Your task to perform on an android device: turn off location history Image 0: 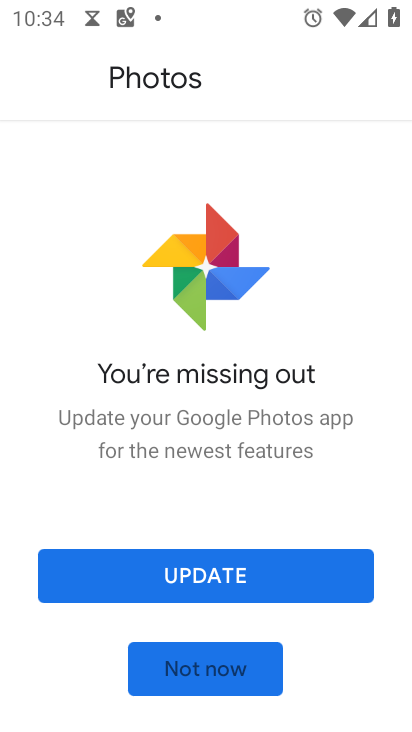
Step 0: click (216, 666)
Your task to perform on an android device: turn off location history Image 1: 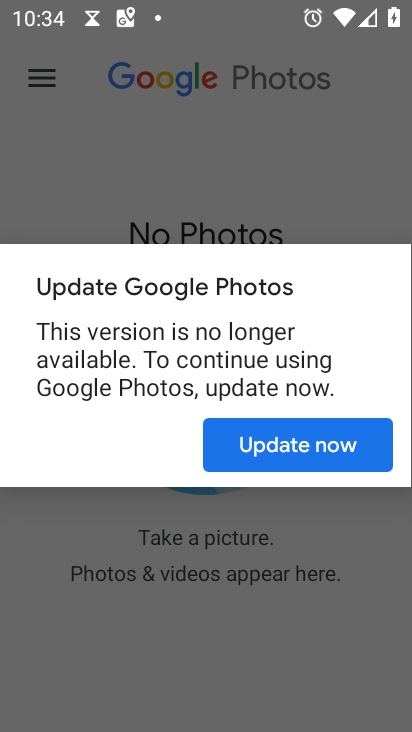
Step 1: press back button
Your task to perform on an android device: turn off location history Image 2: 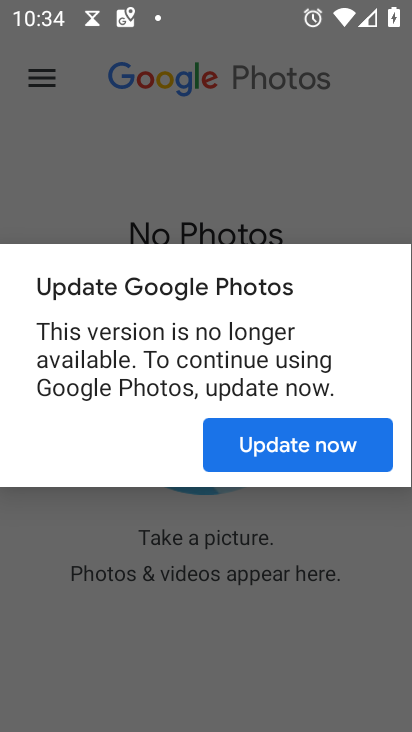
Step 2: press home button
Your task to perform on an android device: turn off location history Image 3: 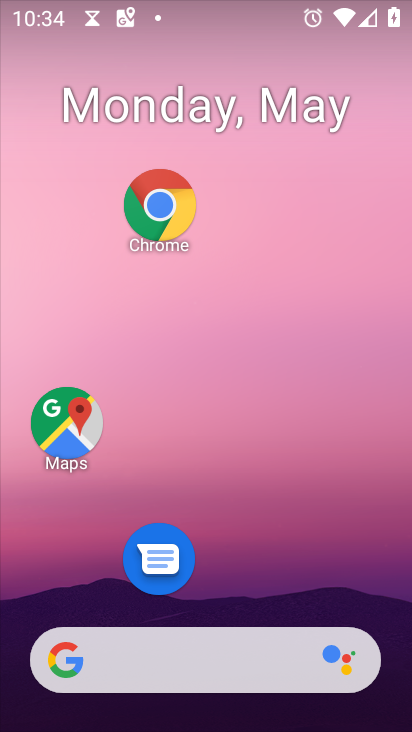
Step 3: drag from (267, 677) to (271, 25)
Your task to perform on an android device: turn off location history Image 4: 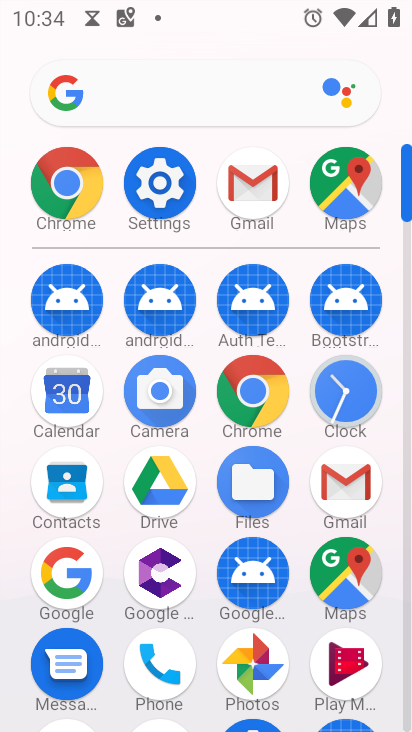
Step 4: click (336, 586)
Your task to perform on an android device: turn off location history Image 5: 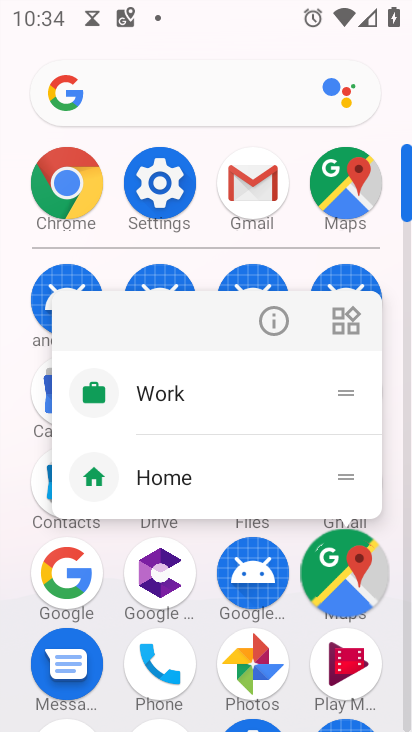
Step 5: click (339, 588)
Your task to perform on an android device: turn off location history Image 6: 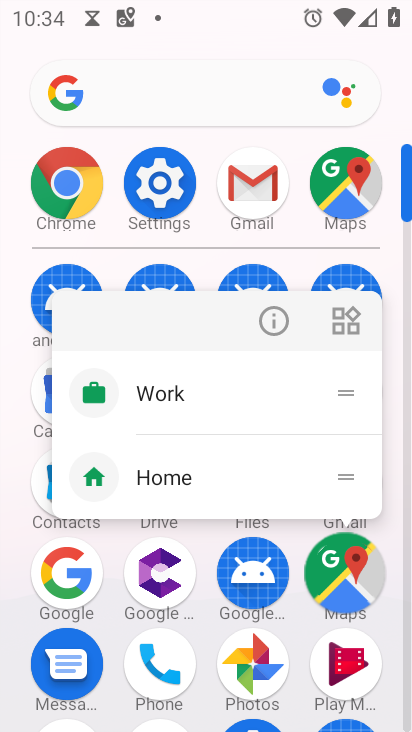
Step 6: click (340, 588)
Your task to perform on an android device: turn off location history Image 7: 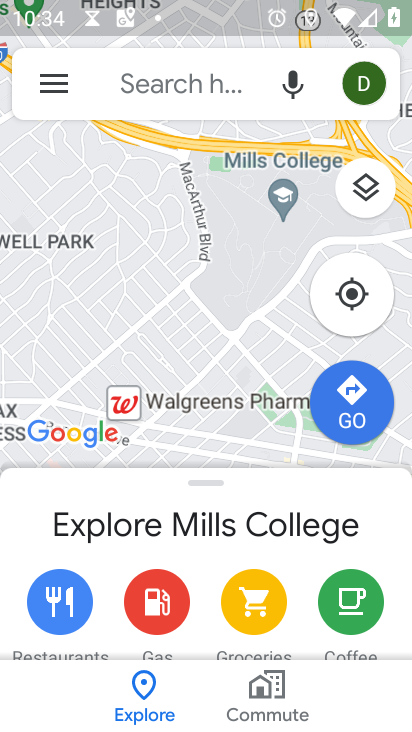
Step 7: click (55, 84)
Your task to perform on an android device: turn off location history Image 8: 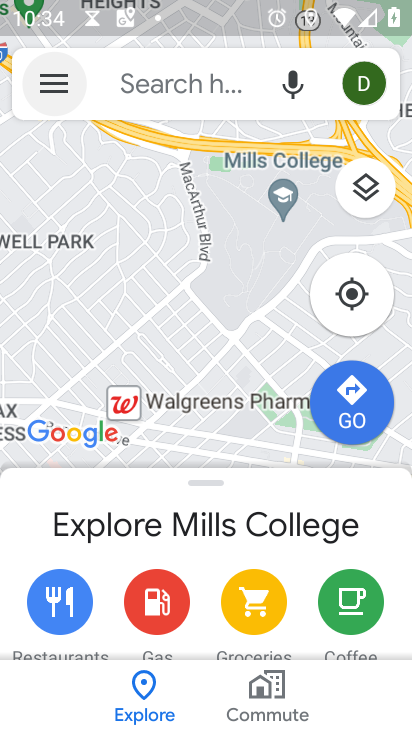
Step 8: click (55, 84)
Your task to perform on an android device: turn off location history Image 9: 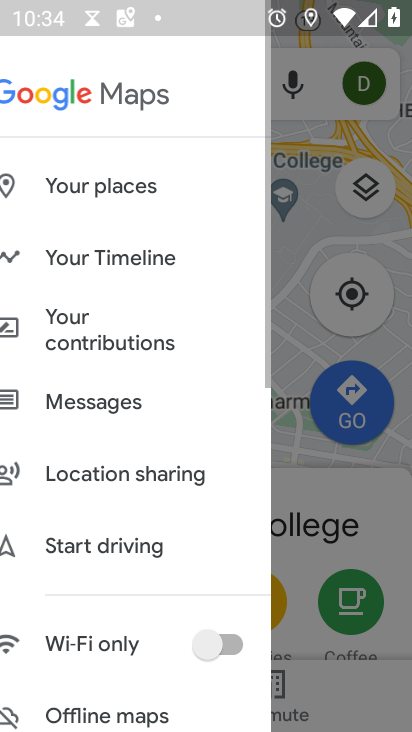
Step 9: click (59, 92)
Your task to perform on an android device: turn off location history Image 10: 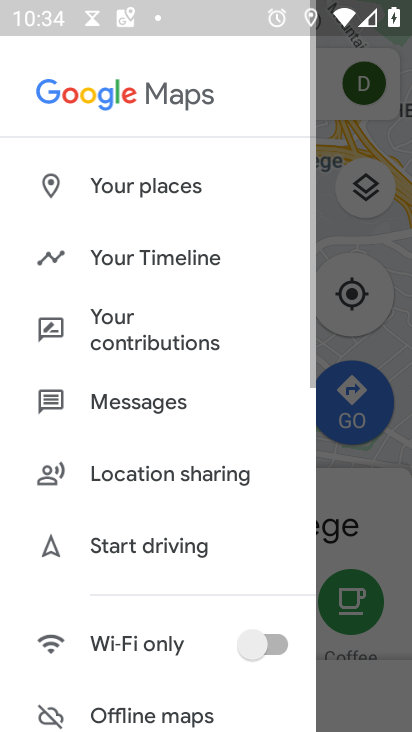
Step 10: click (177, 264)
Your task to perform on an android device: turn off location history Image 11: 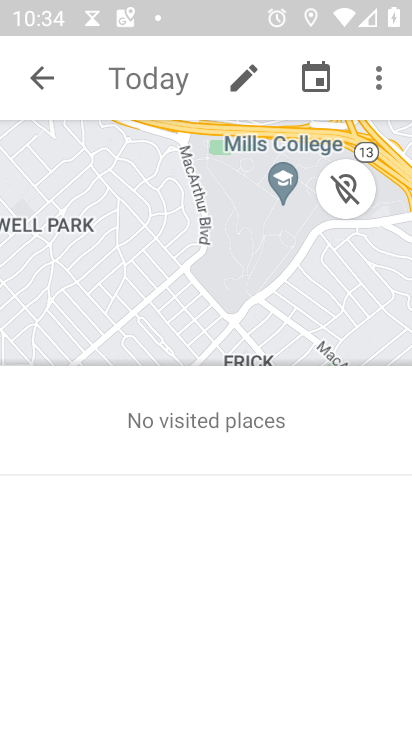
Step 11: drag from (379, 79) to (324, 215)
Your task to perform on an android device: turn off location history Image 12: 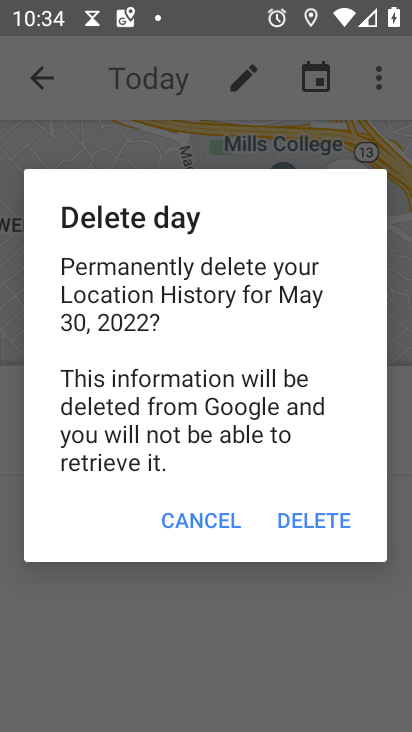
Step 12: click (202, 520)
Your task to perform on an android device: turn off location history Image 13: 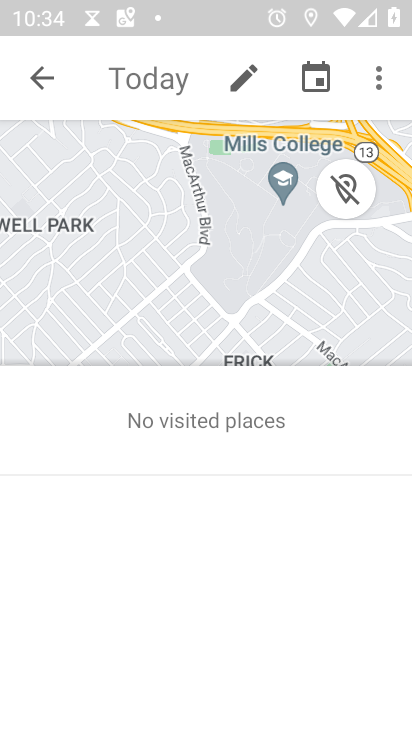
Step 13: click (372, 86)
Your task to perform on an android device: turn off location history Image 14: 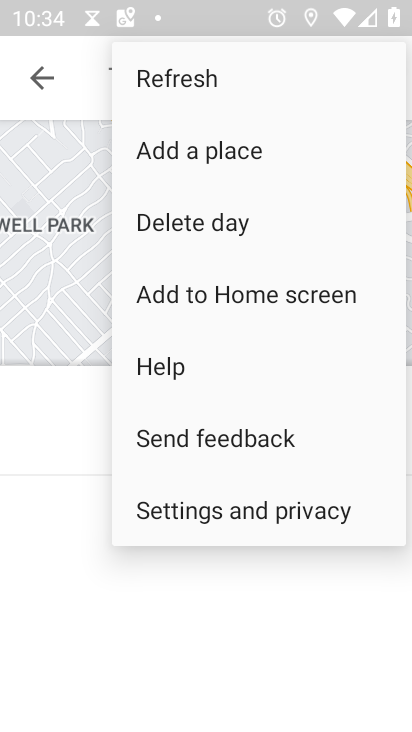
Step 14: click (248, 509)
Your task to perform on an android device: turn off location history Image 15: 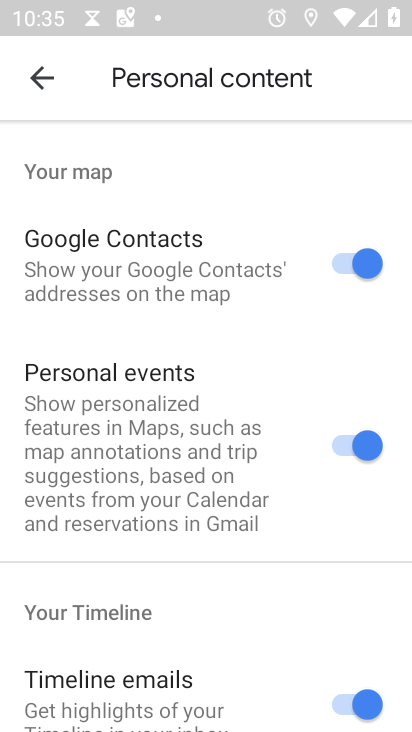
Step 15: drag from (199, 363) to (164, 136)
Your task to perform on an android device: turn off location history Image 16: 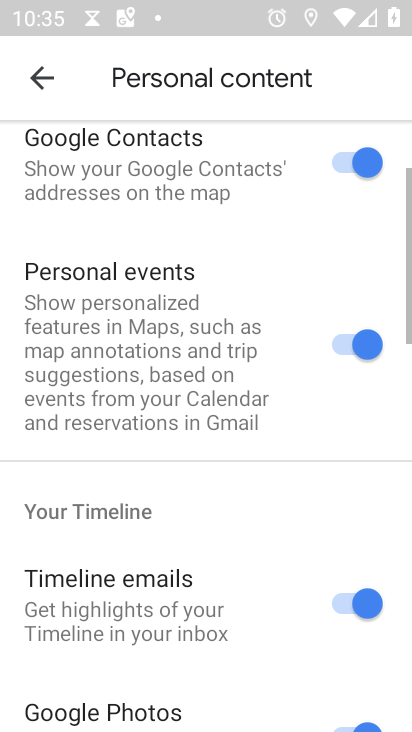
Step 16: drag from (322, 571) to (240, 598)
Your task to perform on an android device: turn off location history Image 17: 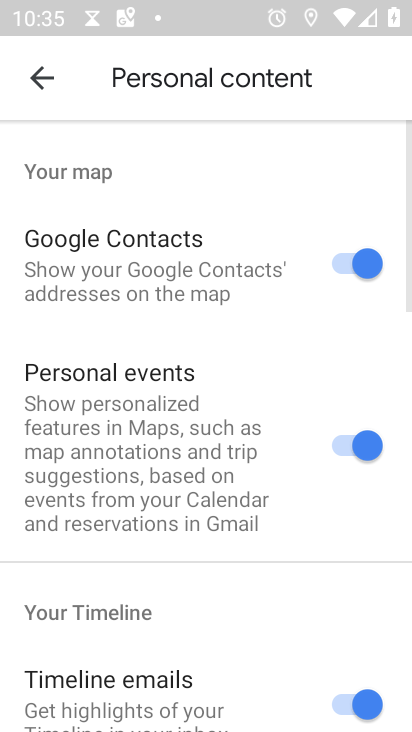
Step 17: drag from (182, 349) to (210, 470)
Your task to perform on an android device: turn off location history Image 18: 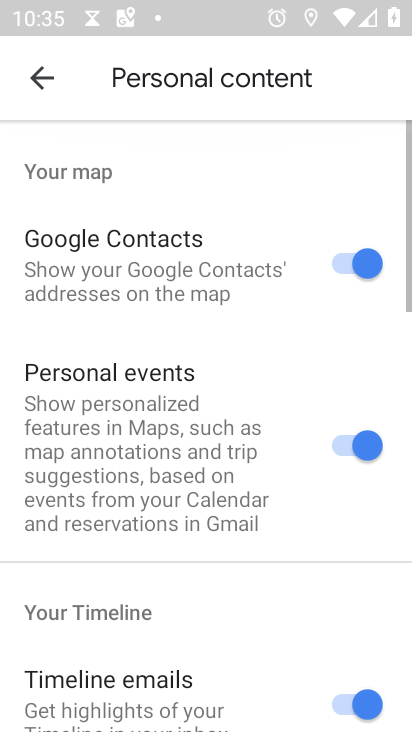
Step 18: drag from (170, 211) to (225, 491)
Your task to perform on an android device: turn off location history Image 19: 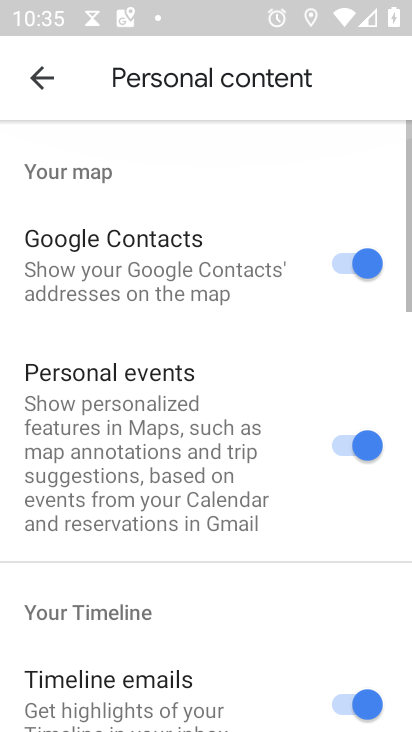
Step 19: drag from (176, 190) to (231, 537)
Your task to perform on an android device: turn off location history Image 20: 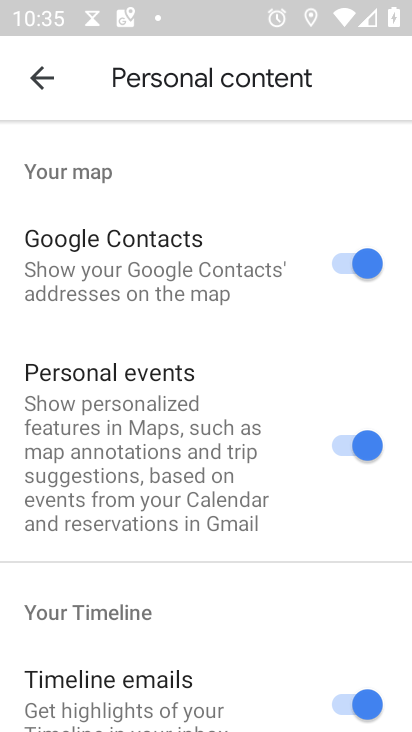
Step 20: drag from (150, 526) to (148, 139)
Your task to perform on an android device: turn off location history Image 21: 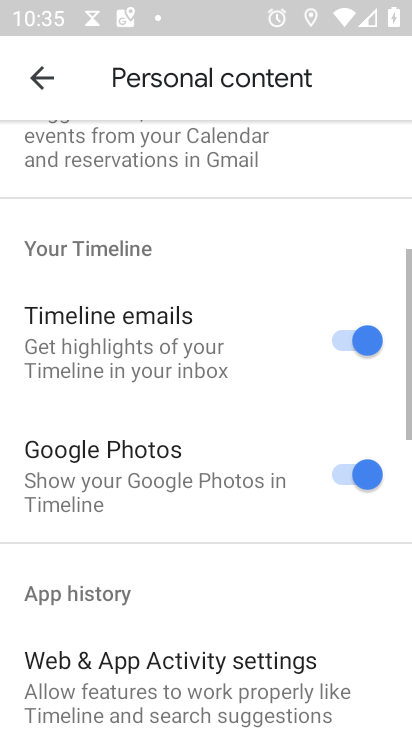
Step 21: drag from (181, 395) to (90, 132)
Your task to perform on an android device: turn off location history Image 22: 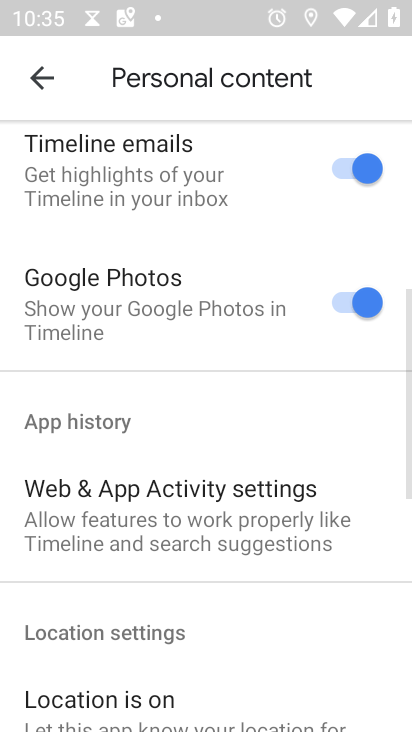
Step 22: click (36, 77)
Your task to perform on an android device: turn off location history Image 23: 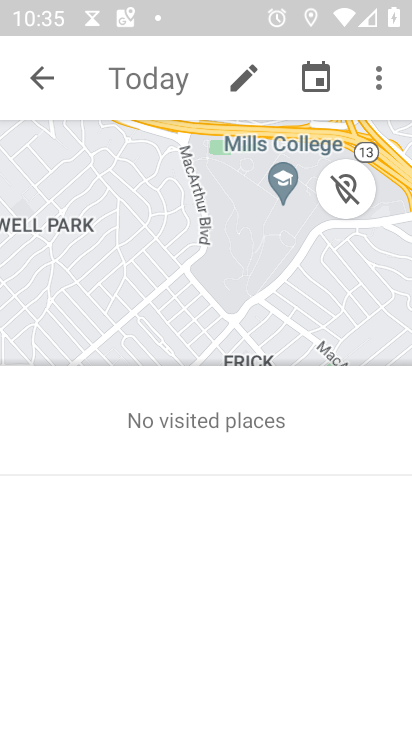
Step 23: click (375, 80)
Your task to perform on an android device: turn off location history Image 24: 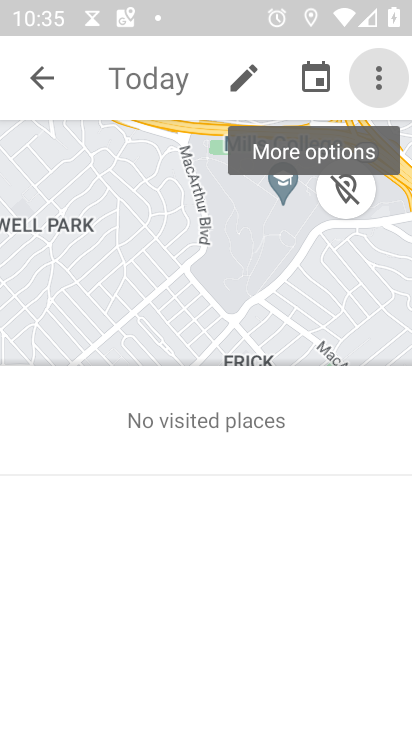
Step 24: click (373, 81)
Your task to perform on an android device: turn off location history Image 25: 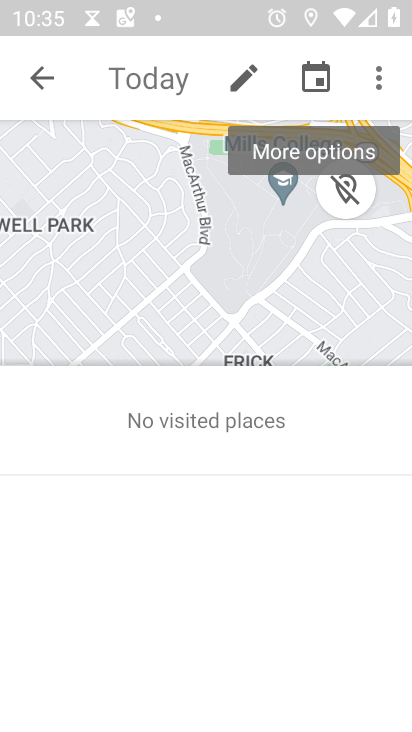
Step 25: click (373, 81)
Your task to perform on an android device: turn off location history Image 26: 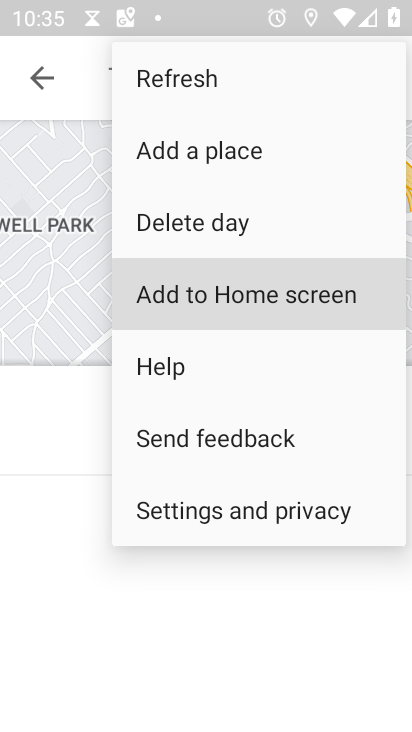
Step 26: click (373, 81)
Your task to perform on an android device: turn off location history Image 27: 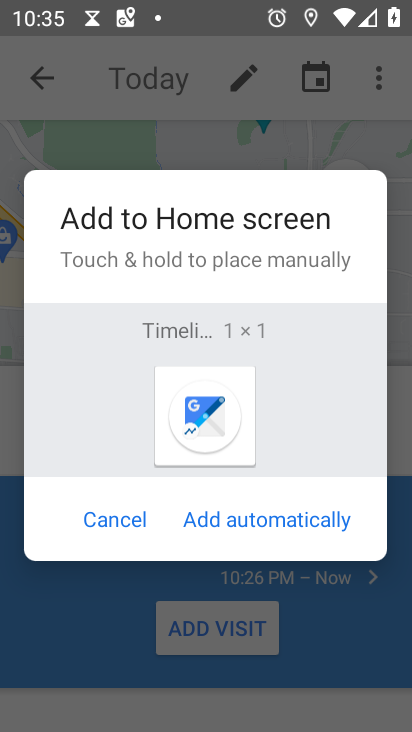
Step 27: click (102, 139)
Your task to perform on an android device: turn off location history Image 28: 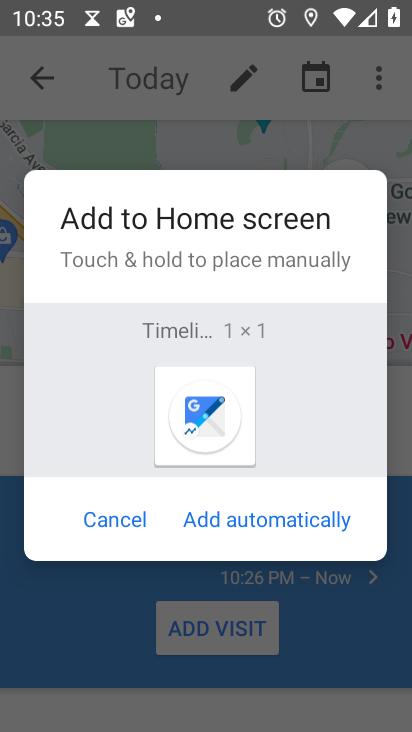
Step 28: click (103, 138)
Your task to perform on an android device: turn off location history Image 29: 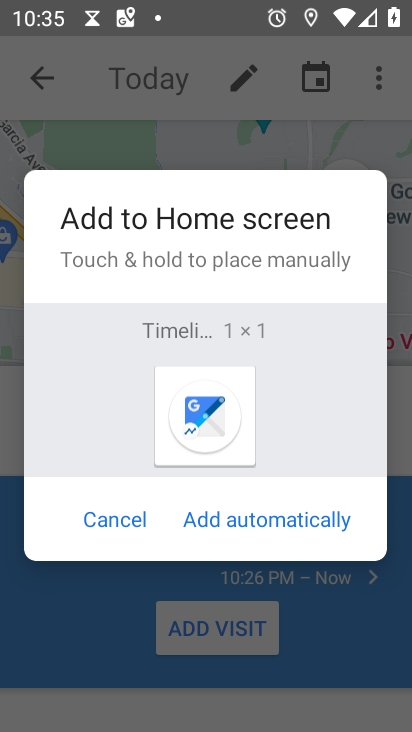
Step 29: click (103, 138)
Your task to perform on an android device: turn off location history Image 30: 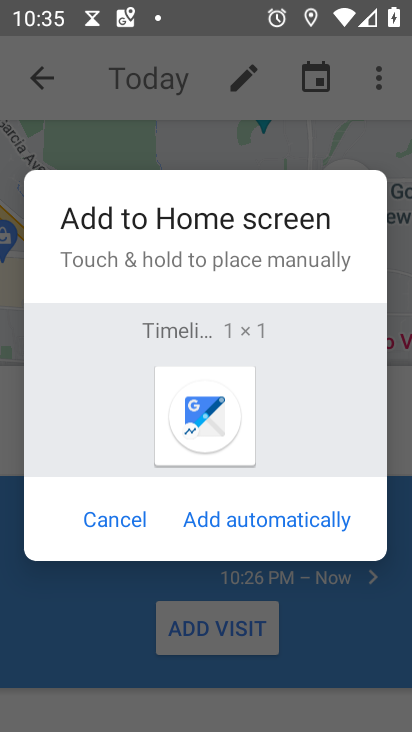
Step 30: click (104, 138)
Your task to perform on an android device: turn off location history Image 31: 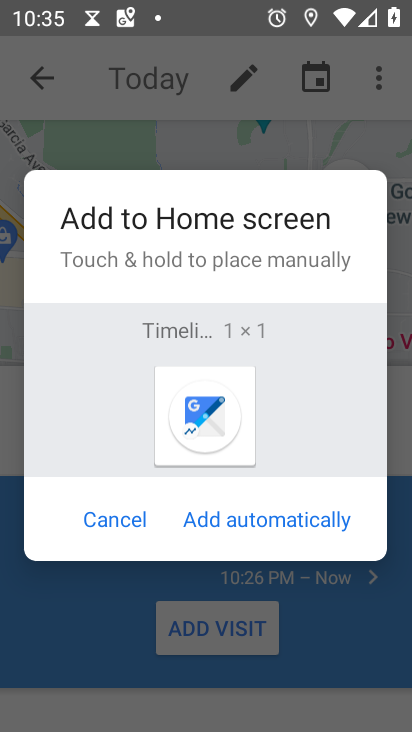
Step 31: click (108, 512)
Your task to perform on an android device: turn off location history Image 32: 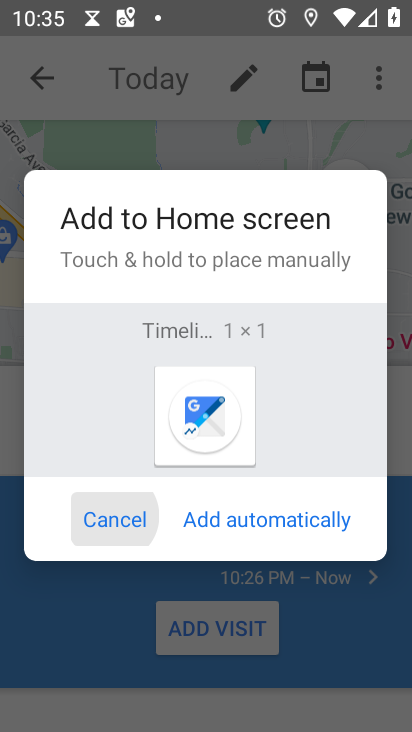
Step 32: click (112, 512)
Your task to perform on an android device: turn off location history Image 33: 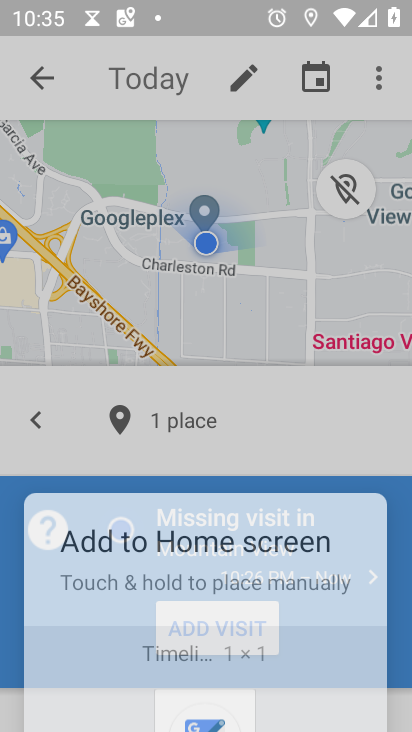
Step 33: click (113, 512)
Your task to perform on an android device: turn off location history Image 34: 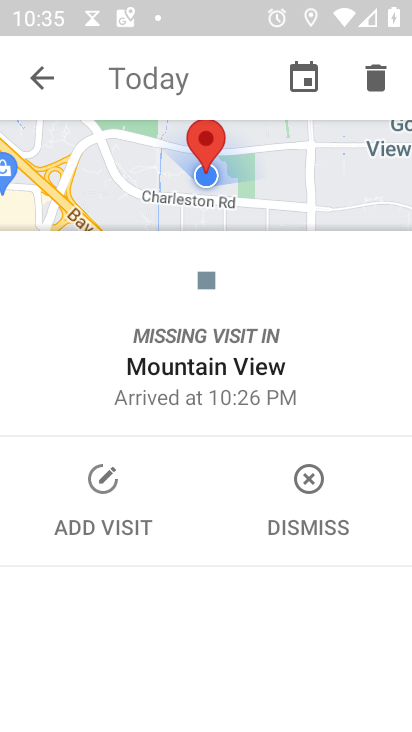
Step 34: task complete